Your task to perform on an android device: Find coffee shops on Maps Image 0: 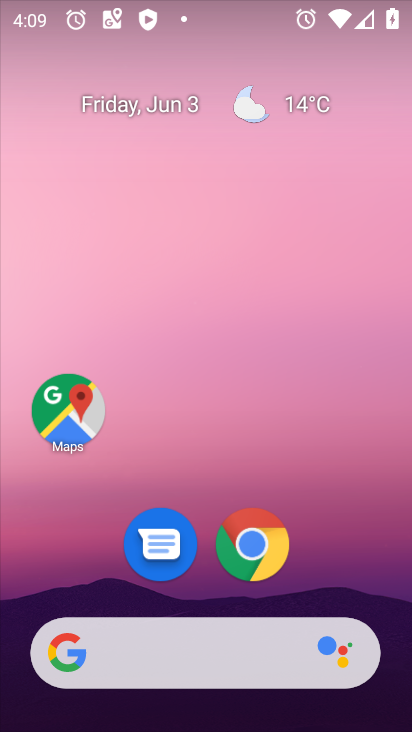
Step 0: click (63, 406)
Your task to perform on an android device: Find coffee shops on Maps Image 1: 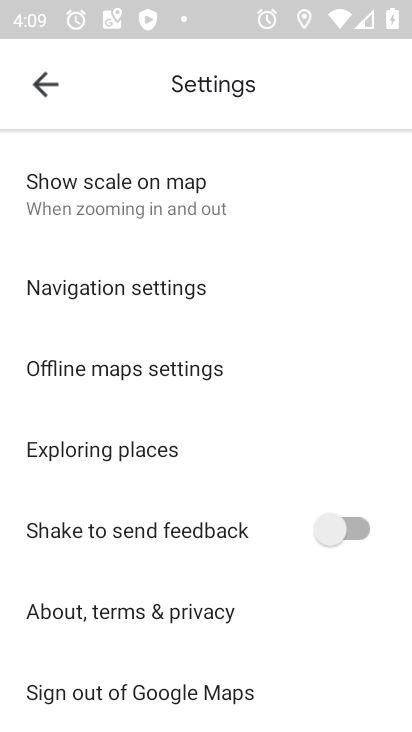
Step 1: press back button
Your task to perform on an android device: Find coffee shops on Maps Image 2: 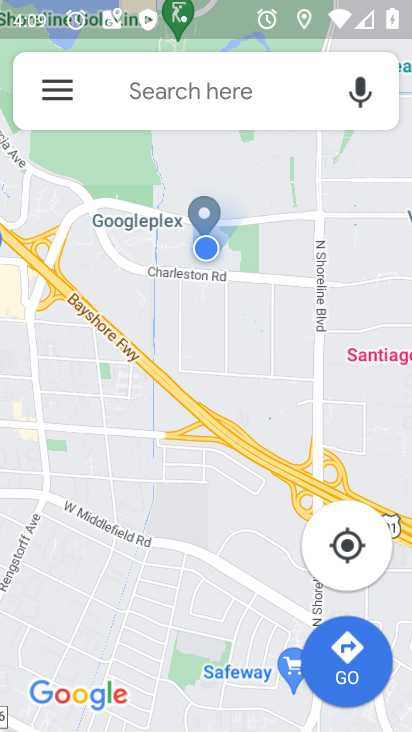
Step 2: click (168, 94)
Your task to perform on an android device: Find coffee shops on Maps Image 3: 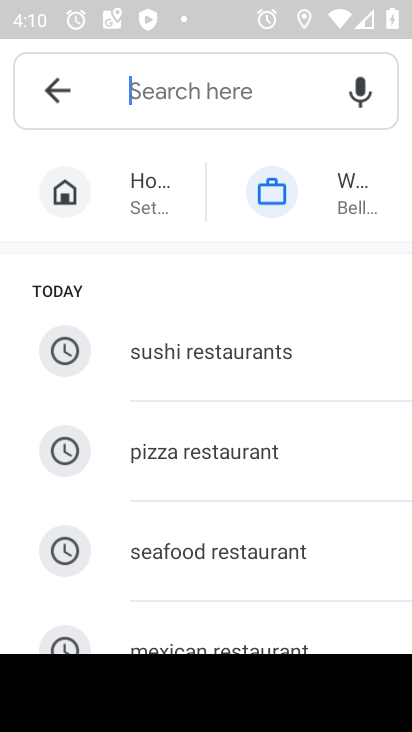
Step 3: type "coffee shop"
Your task to perform on an android device: Find coffee shops on Maps Image 4: 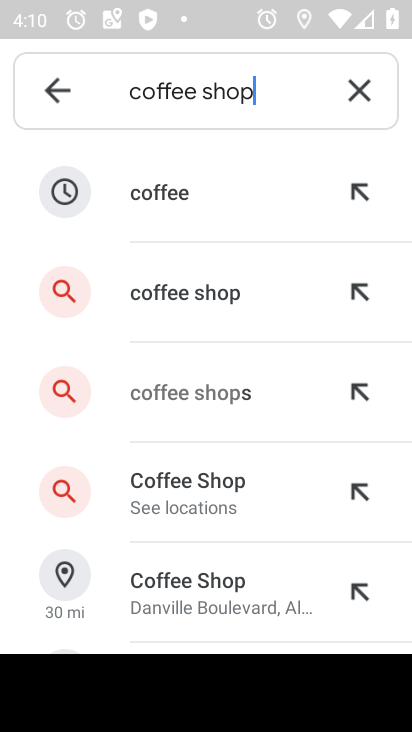
Step 4: click (191, 295)
Your task to perform on an android device: Find coffee shops on Maps Image 5: 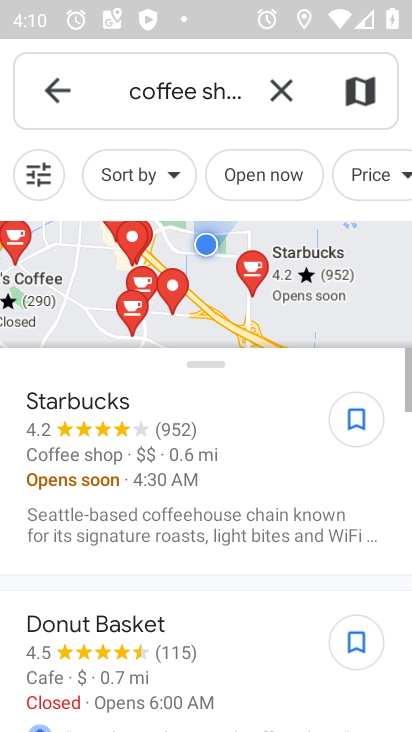
Step 5: task complete